Your task to perform on an android device: toggle improve location accuracy Image 0: 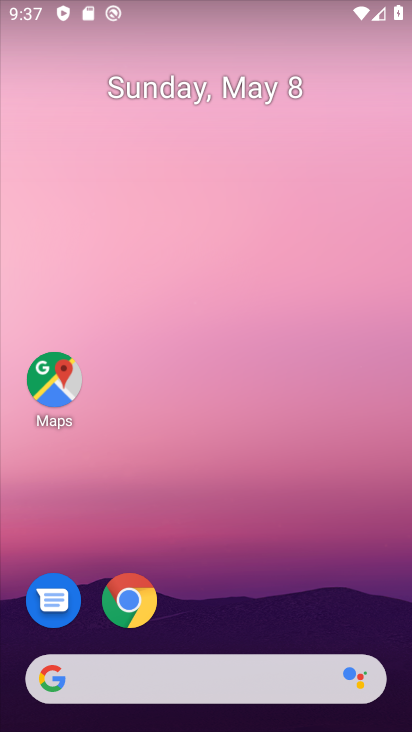
Step 0: drag from (233, 671) to (179, 267)
Your task to perform on an android device: toggle improve location accuracy Image 1: 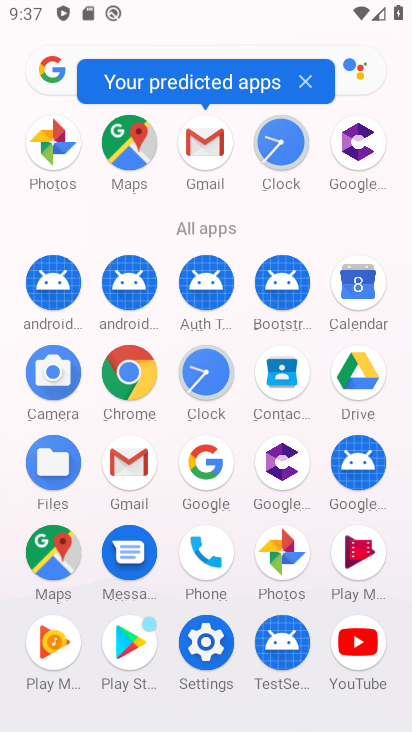
Step 1: click (210, 640)
Your task to perform on an android device: toggle improve location accuracy Image 2: 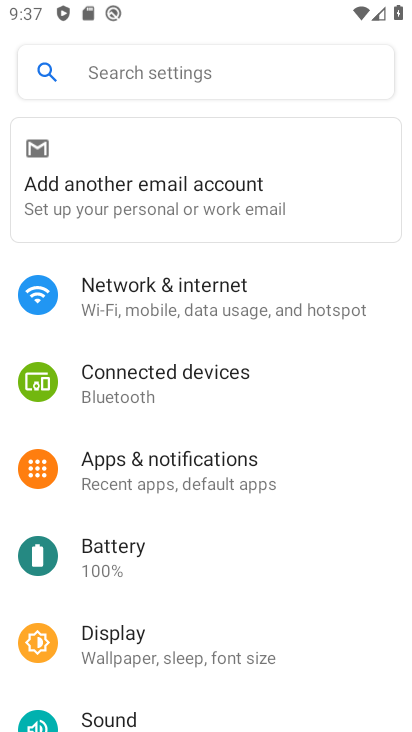
Step 2: drag from (133, 604) to (112, 309)
Your task to perform on an android device: toggle improve location accuracy Image 3: 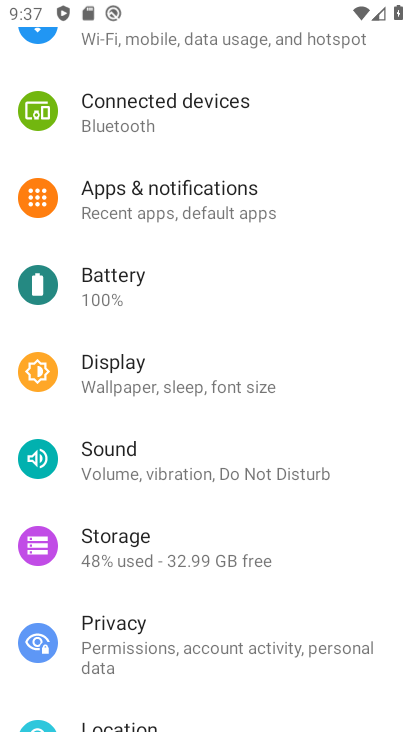
Step 3: drag from (132, 631) to (113, 119)
Your task to perform on an android device: toggle improve location accuracy Image 4: 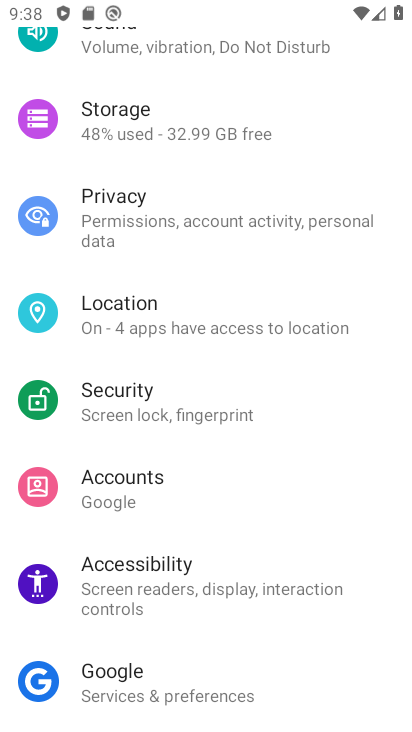
Step 4: click (112, 328)
Your task to perform on an android device: toggle improve location accuracy Image 5: 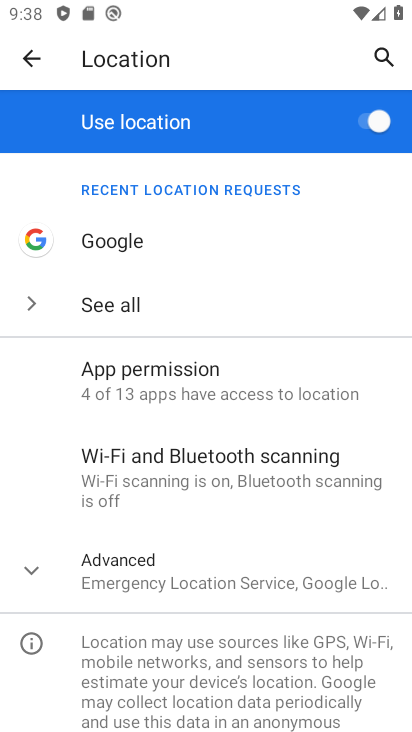
Step 5: click (159, 590)
Your task to perform on an android device: toggle improve location accuracy Image 6: 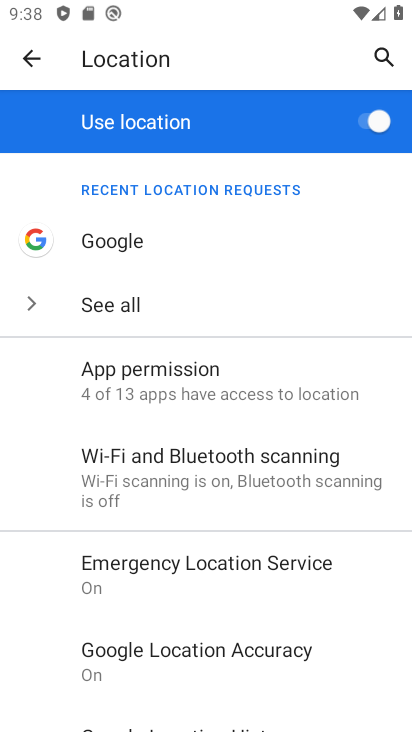
Step 6: click (207, 643)
Your task to perform on an android device: toggle improve location accuracy Image 7: 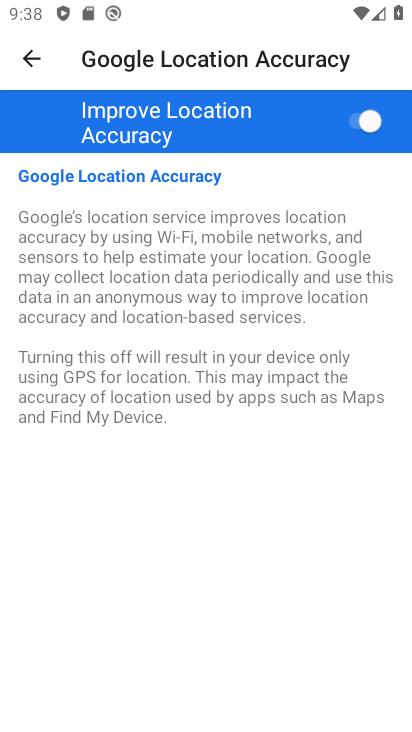
Step 7: click (353, 126)
Your task to perform on an android device: toggle improve location accuracy Image 8: 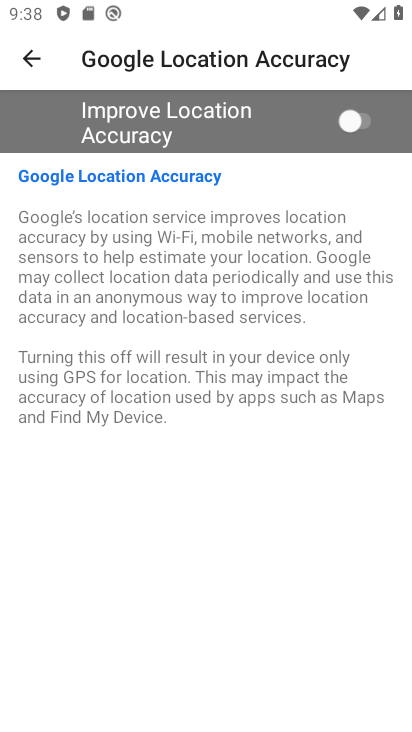
Step 8: task complete